Your task to perform on an android device: Open Chrome and go to the settings page Image 0: 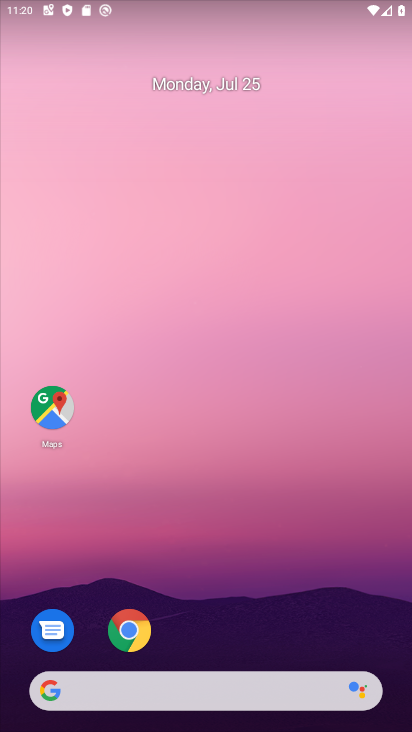
Step 0: click (126, 633)
Your task to perform on an android device: Open Chrome and go to the settings page Image 1: 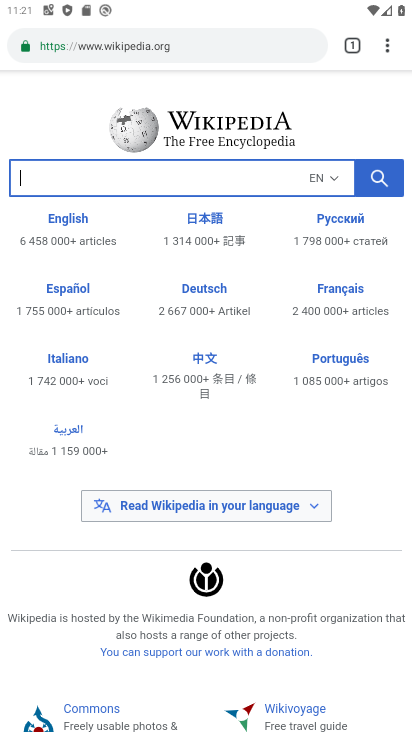
Step 1: click (386, 51)
Your task to perform on an android device: Open Chrome and go to the settings page Image 2: 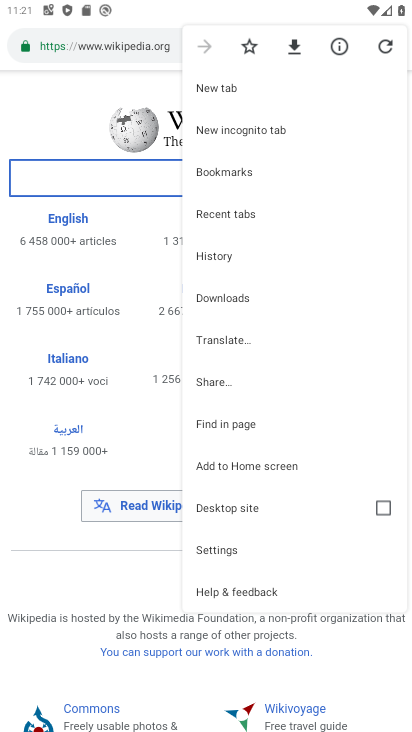
Step 2: click (222, 551)
Your task to perform on an android device: Open Chrome and go to the settings page Image 3: 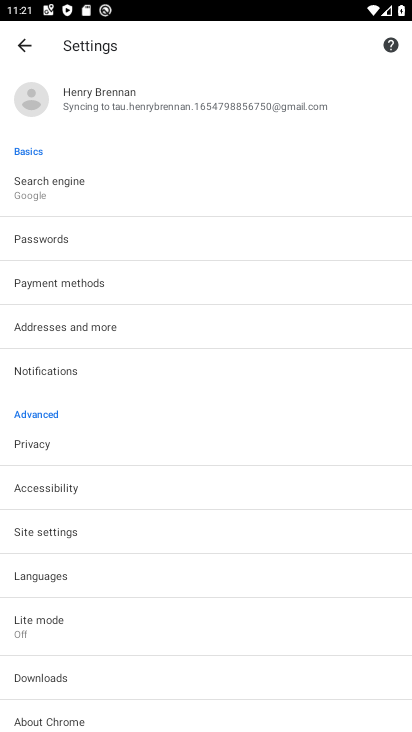
Step 3: task complete